Your task to perform on an android device: turn vacation reply on in the gmail app Image 0: 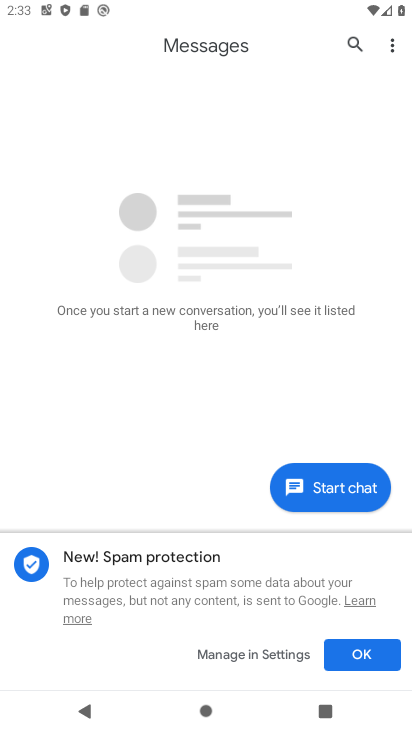
Step 0: press home button
Your task to perform on an android device: turn vacation reply on in the gmail app Image 1: 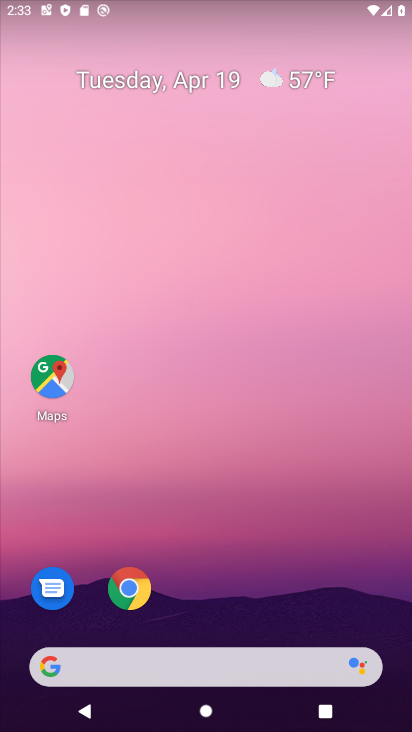
Step 1: drag from (316, 554) to (373, 118)
Your task to perform on an android device: turn vacation reply on in the gmail app Image 2: 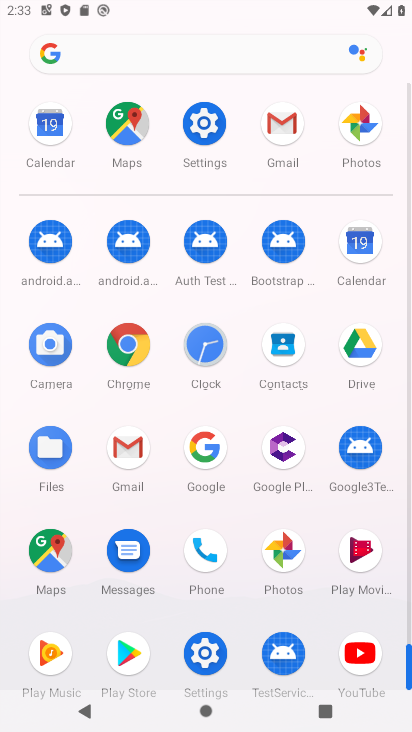
Step 2: click (286, 120)
Your task to perform on an android device: turn vacation reply on in the gmail app Image 3: 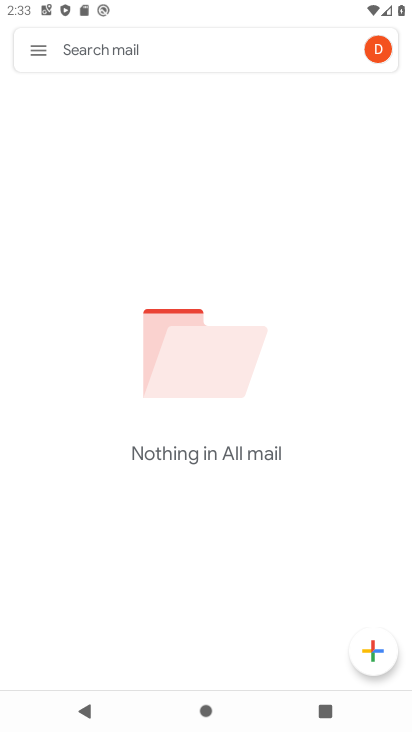
Step 3: click (40, 49)
Your task to perform on an android device: turn vacation reply on in the gmail app Image 4: 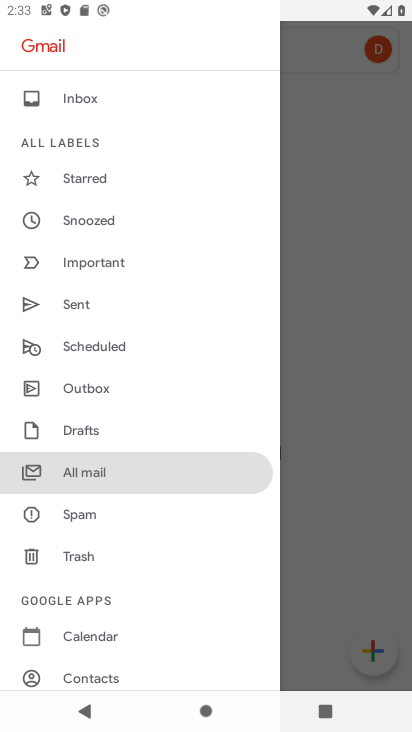
Step 4: drag from (197, 541) to (224, 254)
Your task to perform on an android device: turn vacation reply on in the gmail app Image 5: 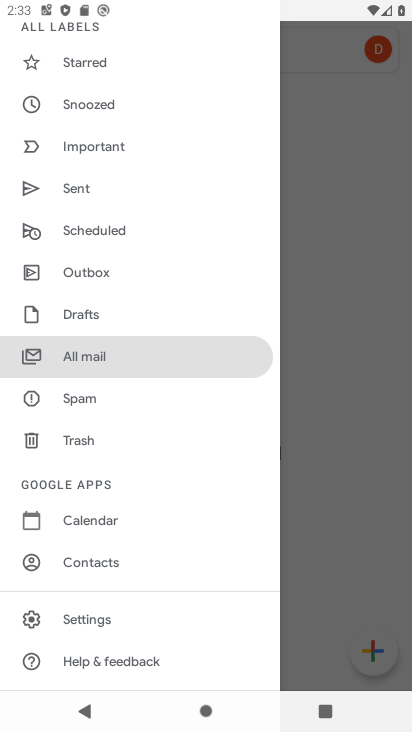
Step 5: click (132, 616)
Your task to perform on an android device: turn vacation reply on in the gmail app Image 6: 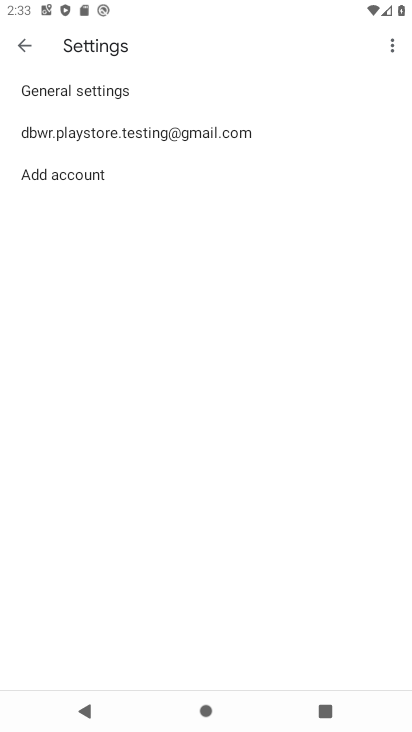
Step 6: click (228, 133)
Your task to perform on an android device: turn vacation reply on in the gmail app Image 7: 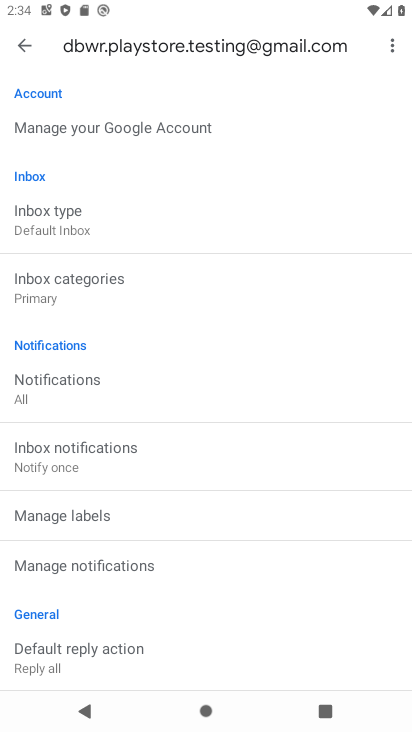
Step 7: drag from (226, 585) to (264, 262)
Your task to perform on an android device: turn vacation reply on in the gmail app Image 8: 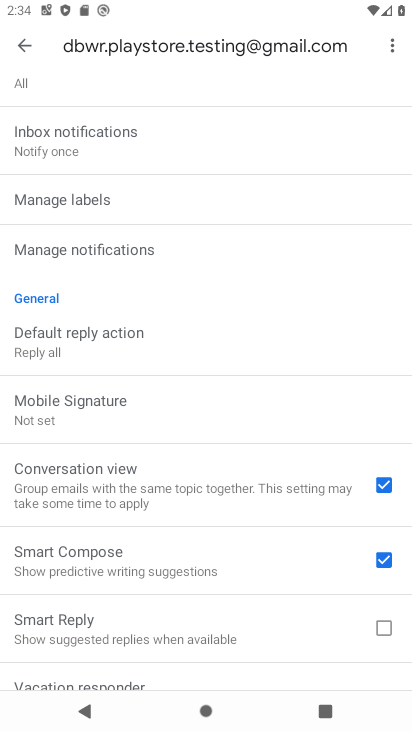
Step 8: drag from (229, 408) to (251, 215)
Your task to perform on an android device: turn vacation reply on in the gmail app Image 9: 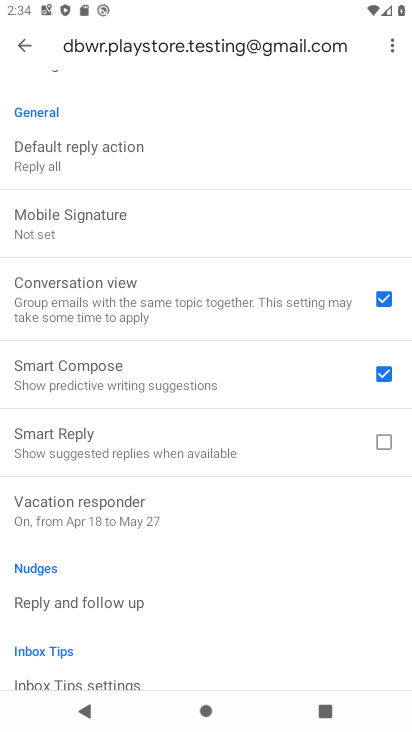
Step 9: click (200, 513)
Your task to perform on an android device: turn vacation reply on in the gmail app Image 10: 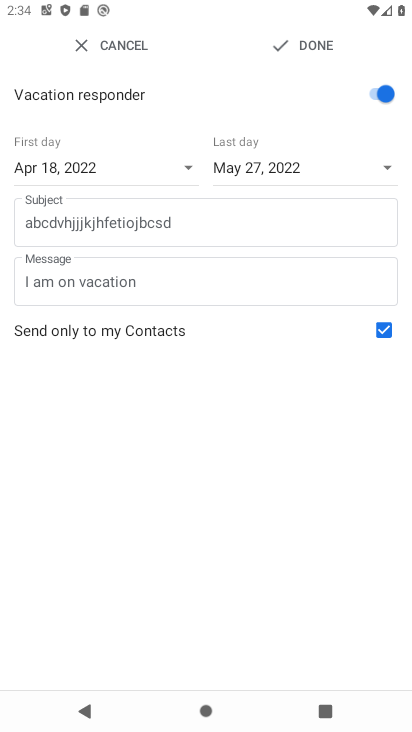
Step 10: task complete